Your task to perform on an android device: change the clock display to show seconds Image 0: 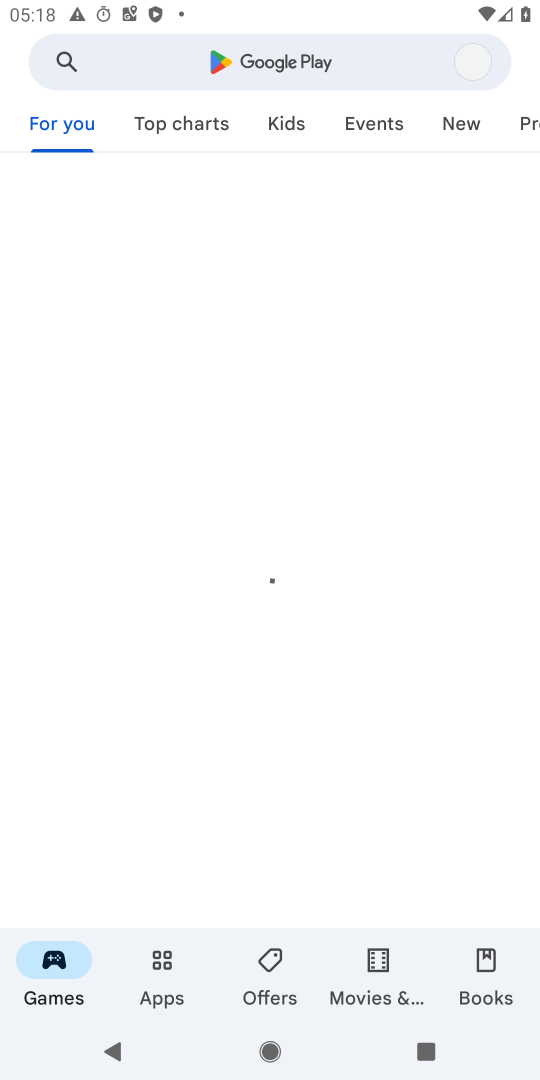
Step 0: press home button
Your task to perform on an android device: change the clock display to show seconds Image 1: 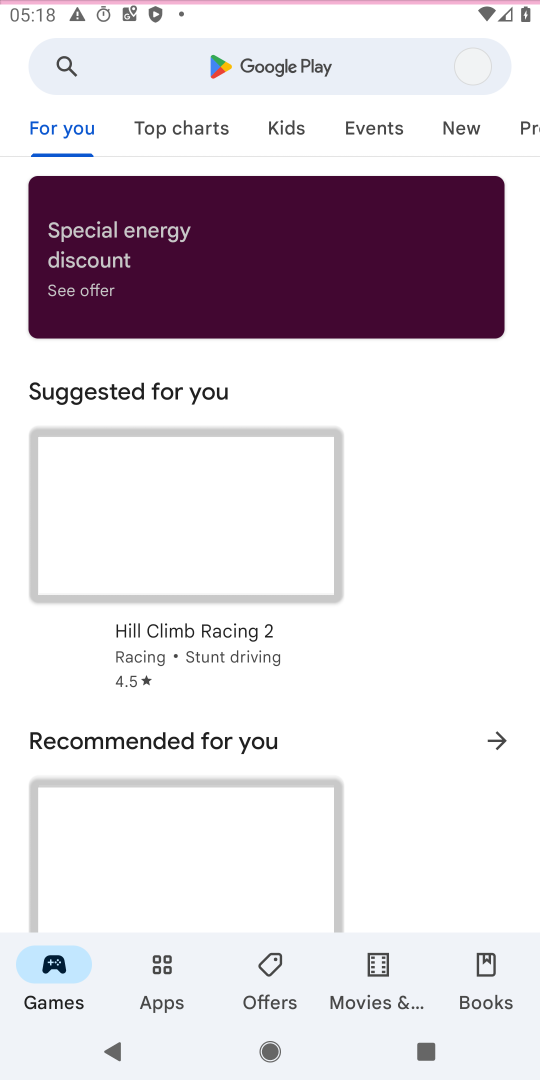
Step 1: press home button
Your task to perform on an android device: change the clock display to show seconds Image 2: 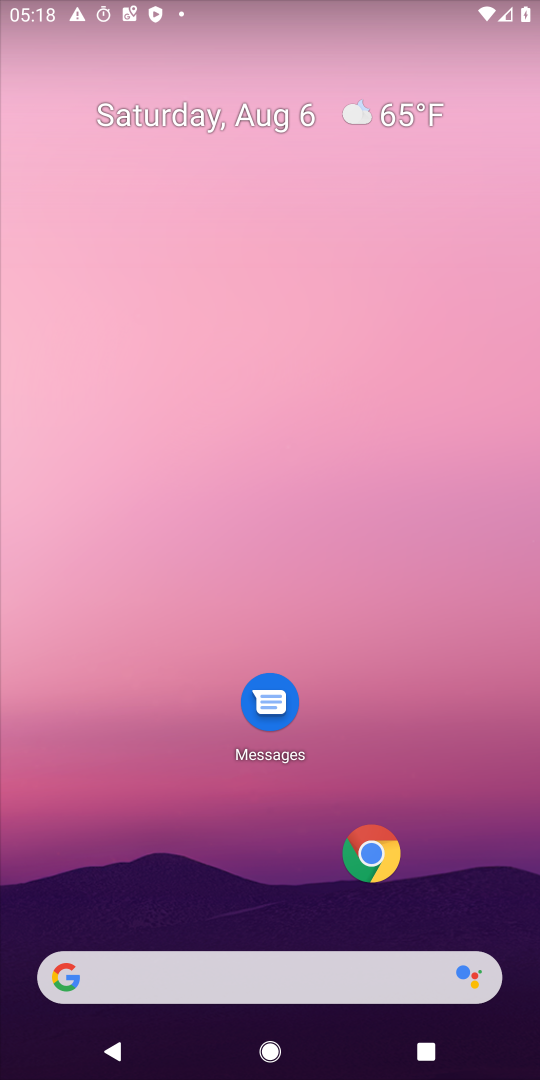
Step 2: drag from (430, 598) to (407, 65)
Your task to perform on an android device: change the clock display to show seconds Image 3: 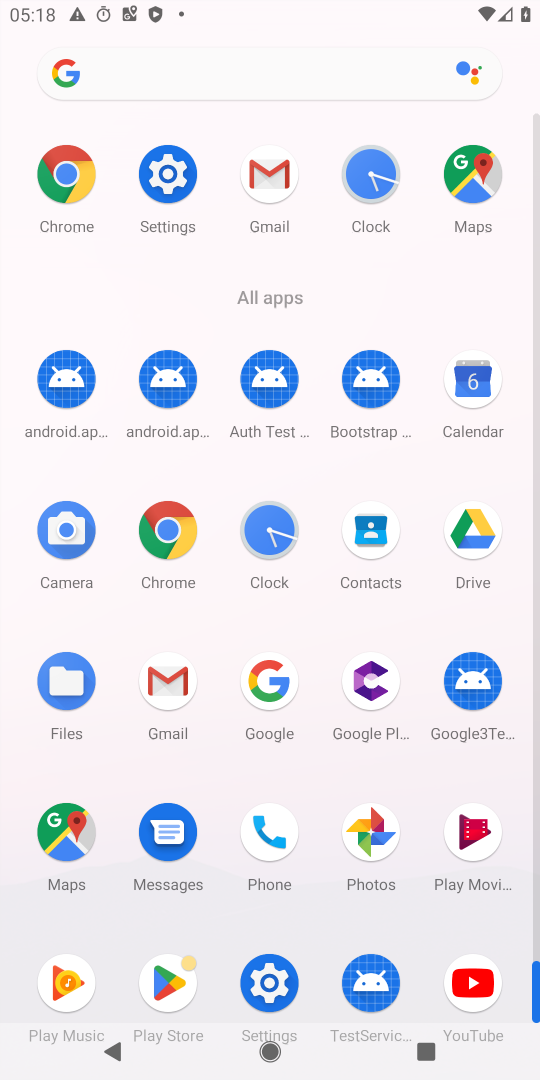
Step 3: click (260, 541)
Your task to perform on an android device: change the clock display to show seconds Image 4: 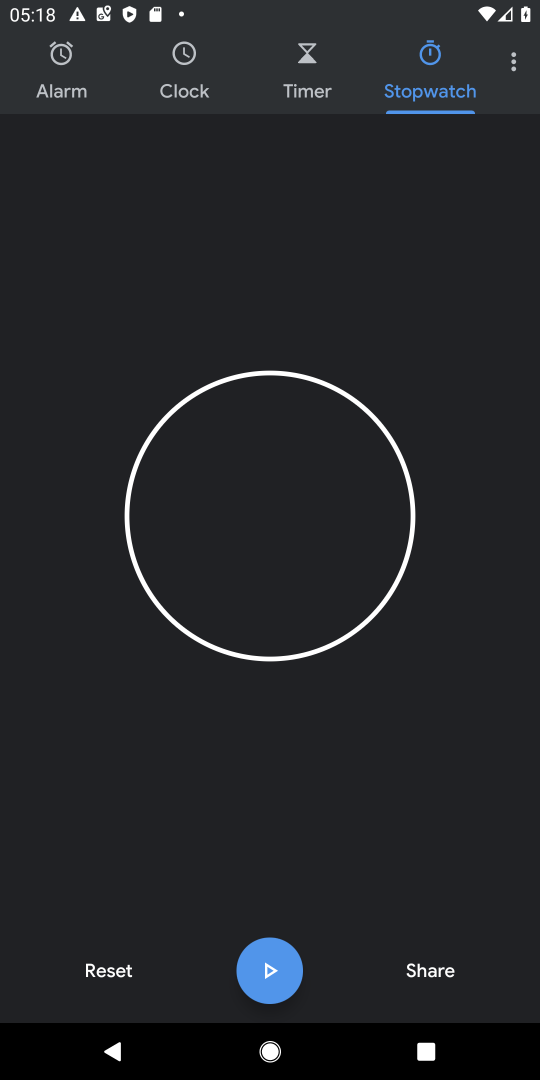
Step 4: click (515, 66)
Your task to perform on an android device: change the clock display to show seconds Image 5: 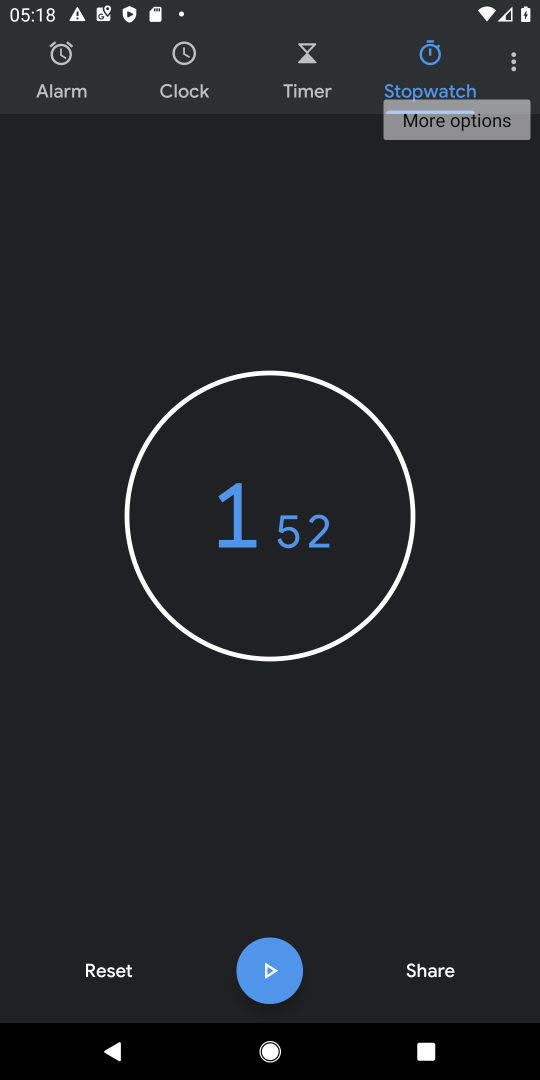
Step 5: click (516, 56)
Your task to perform on an android device: change the clock display to show seconds Image 6: 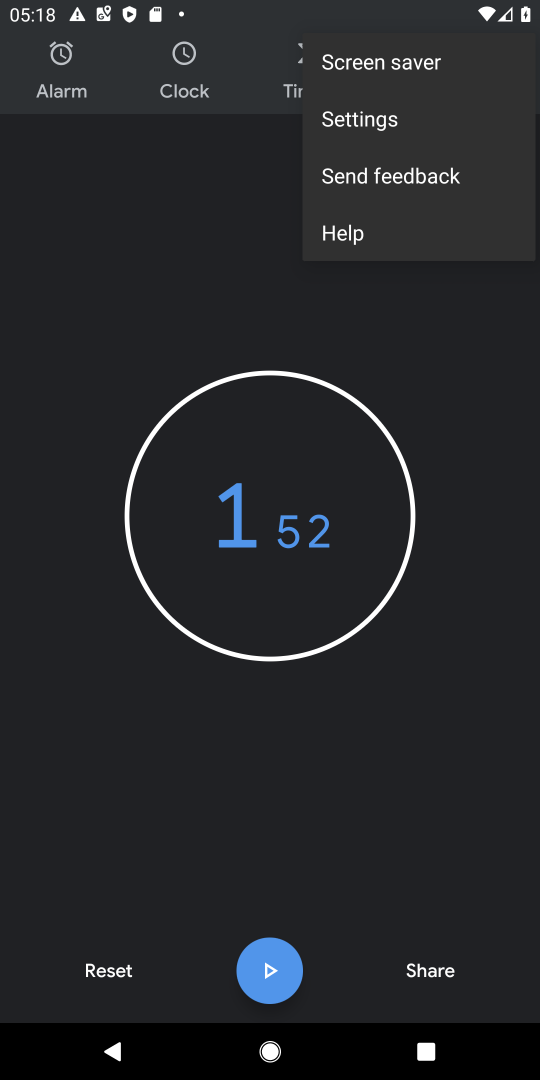
Step 6: click (396, 127)
Your task to perform on an android device: change the clock display to show seconds Image 7: 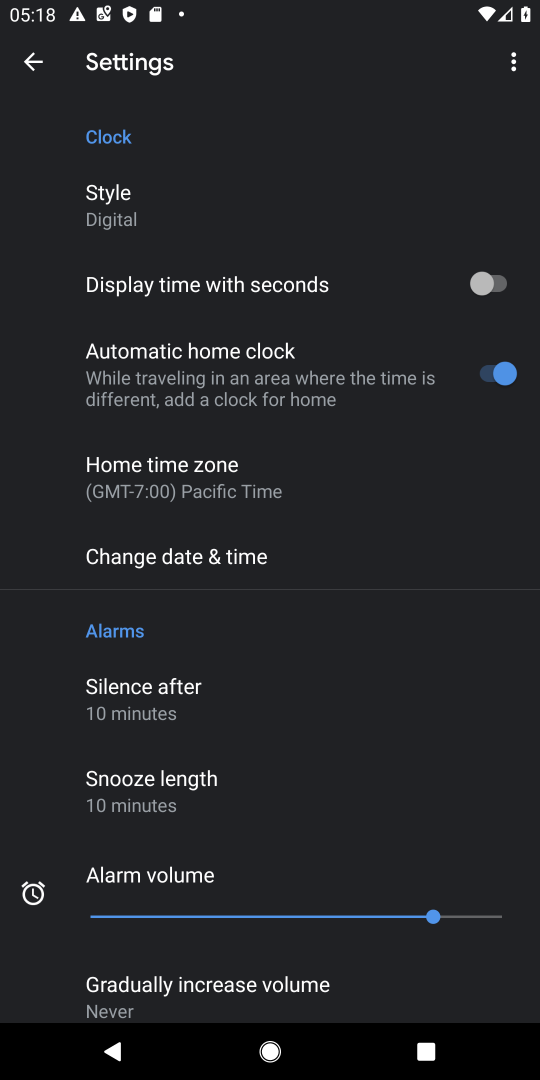
Step 7: click (504, 290)
Your task to perform on an android device: change the clock display to show seconds Image 8: 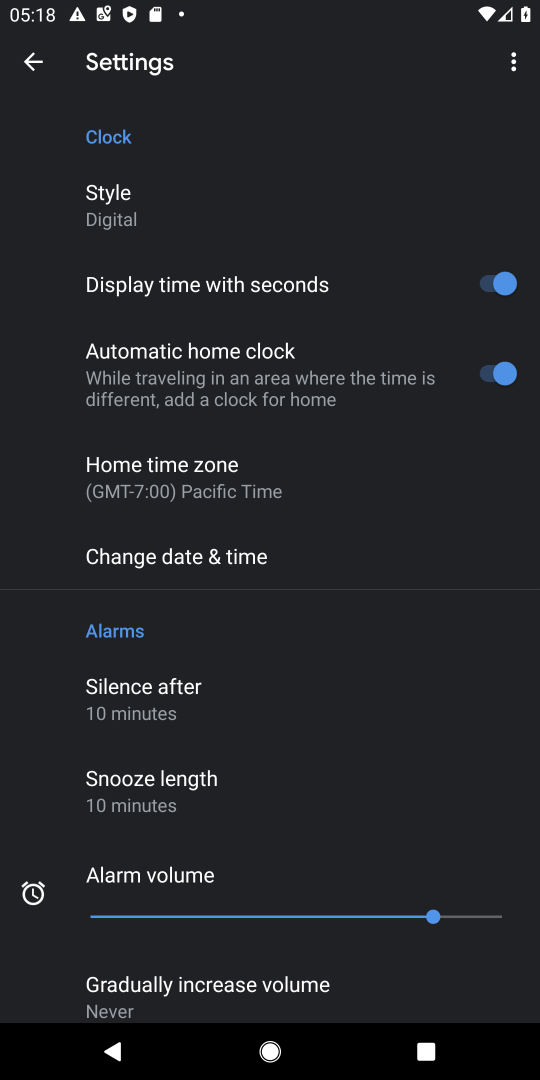
Step 8: task complete